Your task to perform on an android device: Open Maps and search for coffee Image 0: 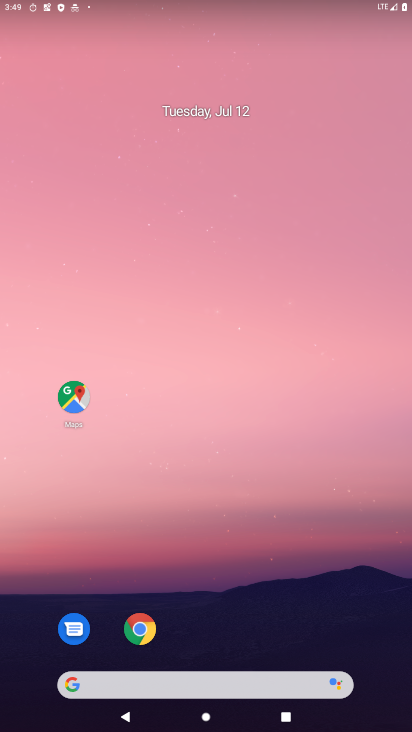
Step 0: drag from (250, 640) to (333, 139)
Your task to perform on an android device: Open Maps and search for coffee Image 1: 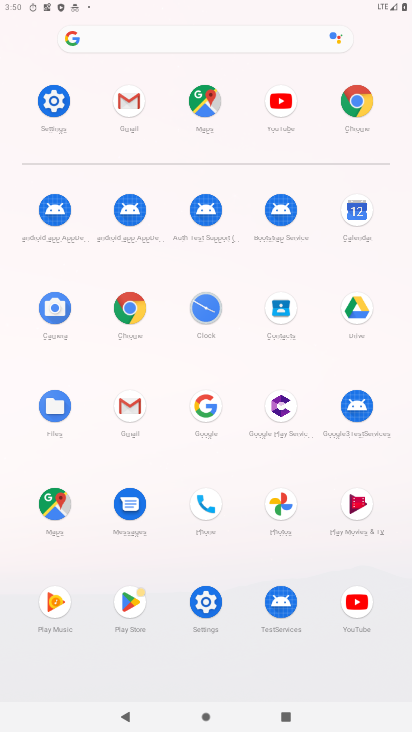
Step 1: click (202, 93)
Your task to perform on an android device: Open Maps and search for coffee Image 2: 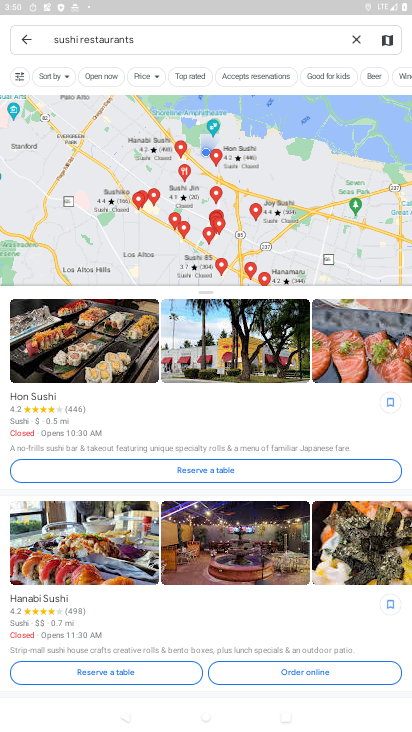
Step 2: click (357, 39)
Your task to perform on an android device: Open Maps and search for coffee Image 3: 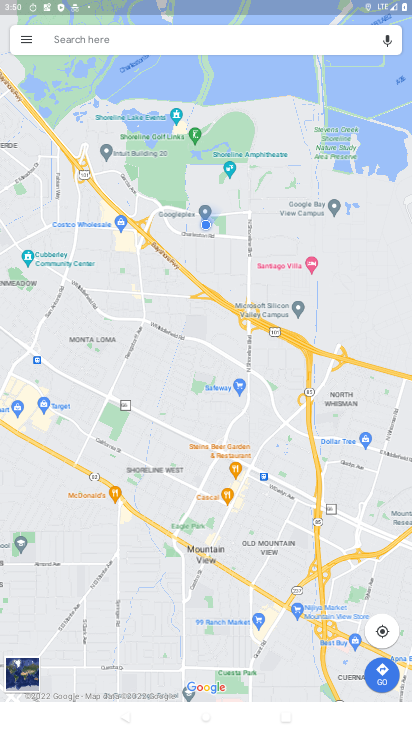
Step 3: click (195, 35)
Your task to perform on an android device: Open Maps and search for coffee Image 4: 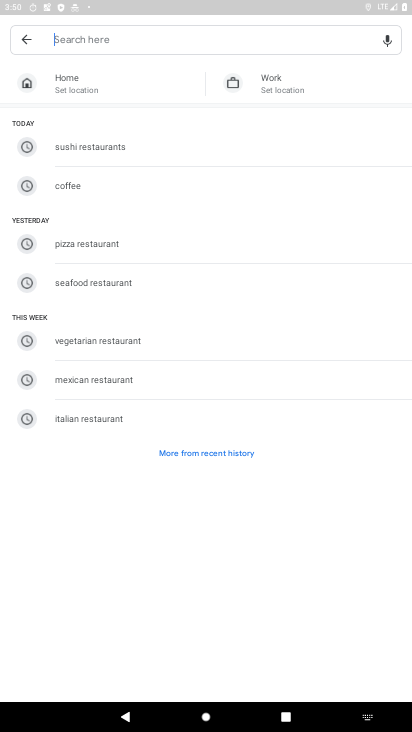
Step 4: type " coffee"
Your task to perform on an android device: Open Maps and search for coffee Image 5: 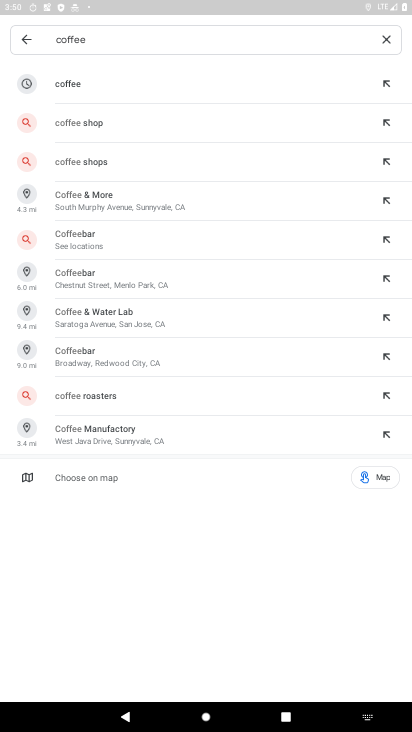
Step 5: click (57, 83)
Your task to perform on an android device: Open Maps and search for coffee Image 6: 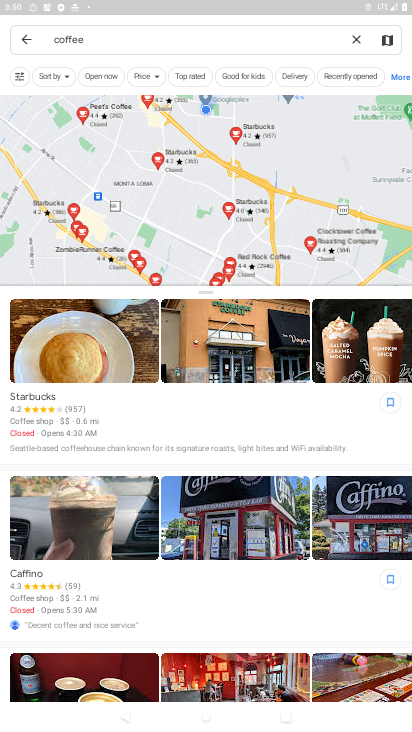
Step 6: task complete